Your task to perform on an android device: Open wifi settings Image 0: 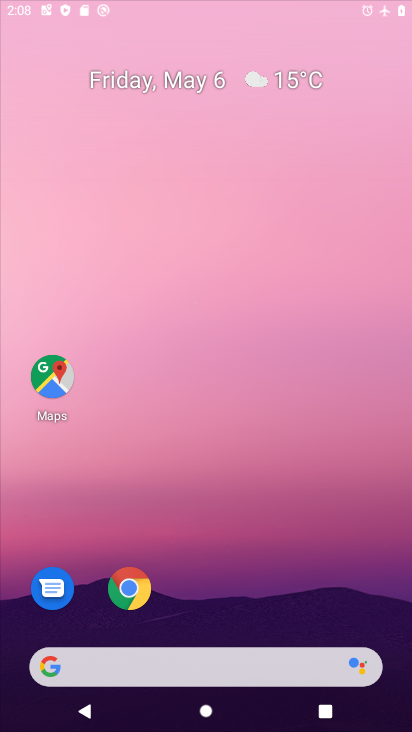
Step 0: drag from (236, 598) to (274, 202)
Your task to perform on an android device: Open wifi settings Image 1: 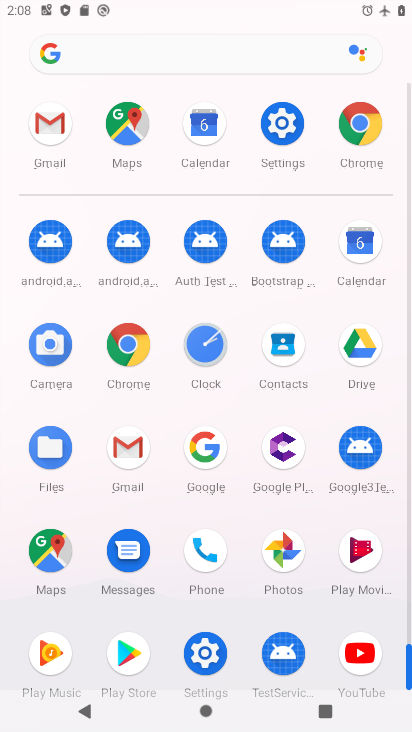
Step 1: click (268, 128)
Your task to perform on an android device: Open wifi settings Image 2: 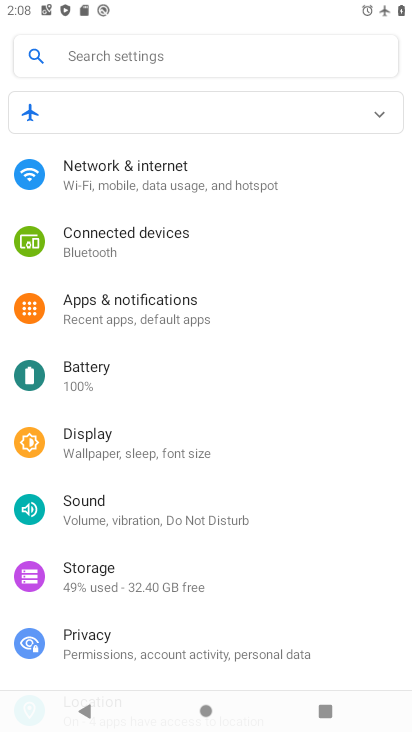
Step 2: drag from (188, 631) to (263, 233)
Your task to perform on an android device: Open wifi settings Image 3: 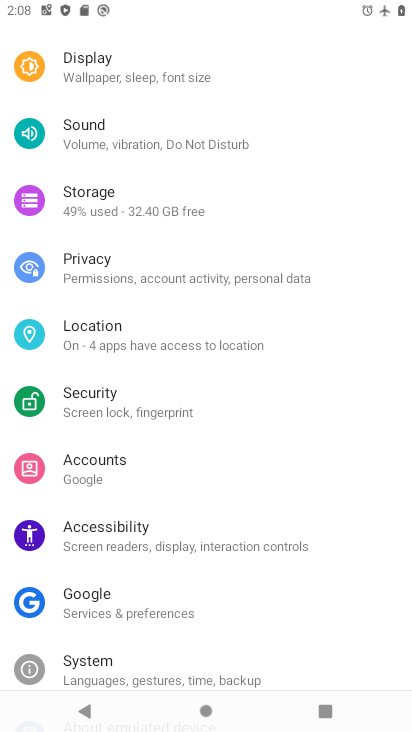
Step 3: drag from (268, 203) to (210, 731)
Your task to perform on an android device: Open wifi settings Image 4: 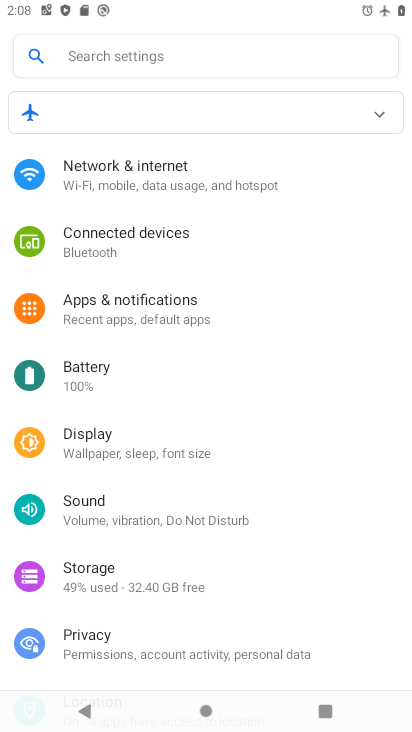
Step 4: click (171, 177)
Your task to perform on an android device: Open wifi settings Image 5: 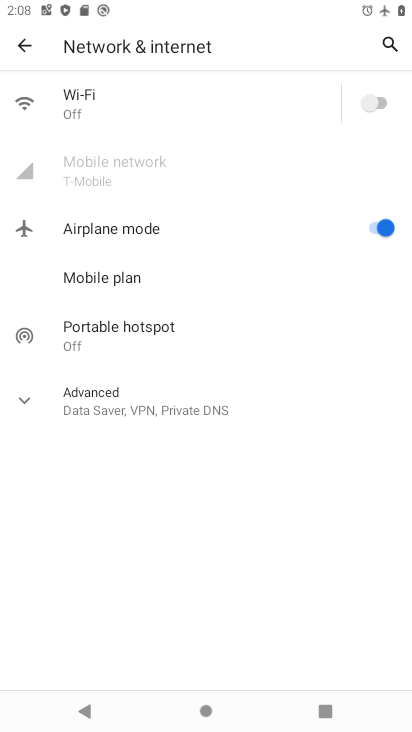
Step 5: click (236, 112)
Your task to perform on an android device: Open wifi settings Image 6: 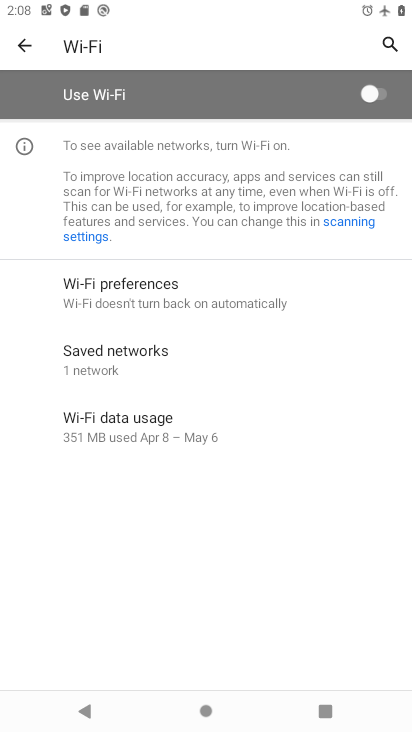
Step 6: task complete